Your task to perform on an android device: set an alarm Image 0: 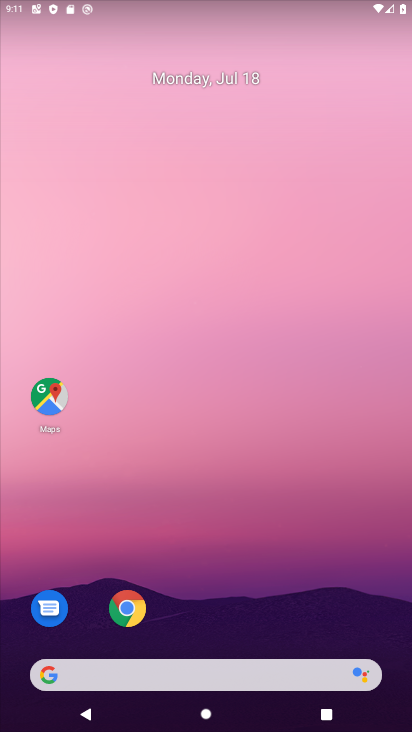
Step 0: press home button
Your task to perform on an android device: set an alarm Image 1: 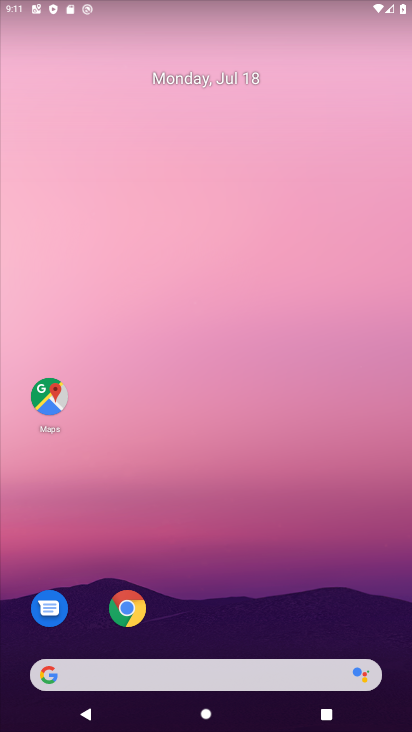
Step 1: drag from (217, 642) to (267, 1)
Your task to perform on an android device: set an alarm Image 2: 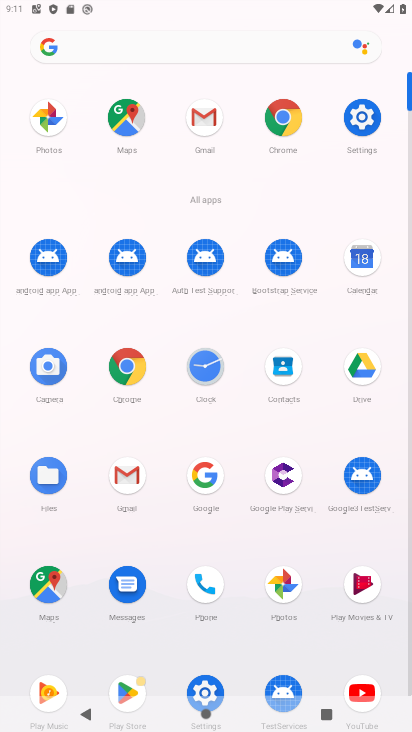
Step 2: click (202, 357)
Your task to perform on an android device: set an alarm Image 3: 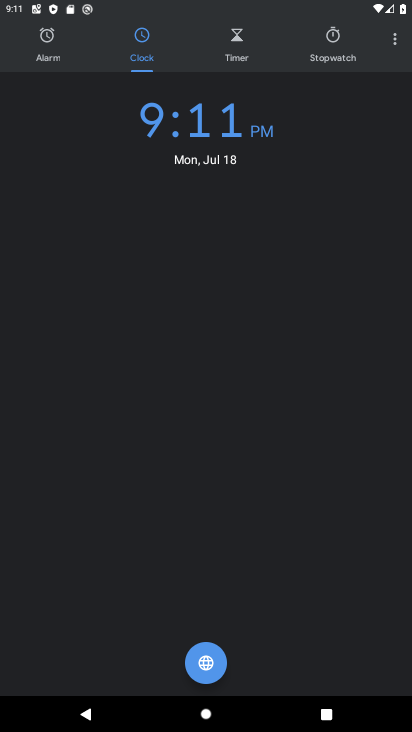
Step 3: click (46, 32)
Your task to perform on an android device: set an alarm Image 4: 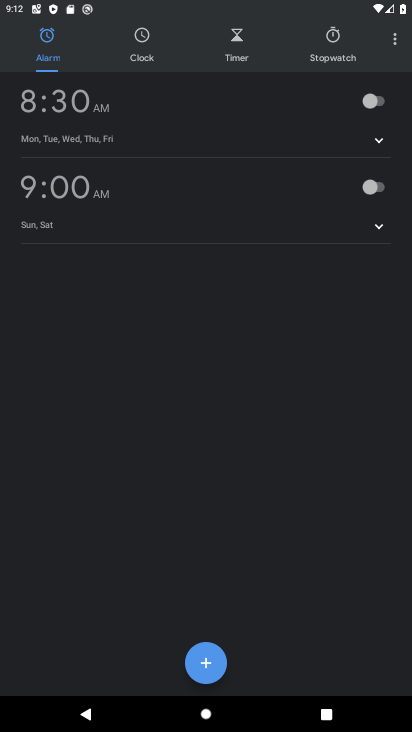
Step 4: click (378, 97)
Your task to perform on an android device: set an alarm Image 5: 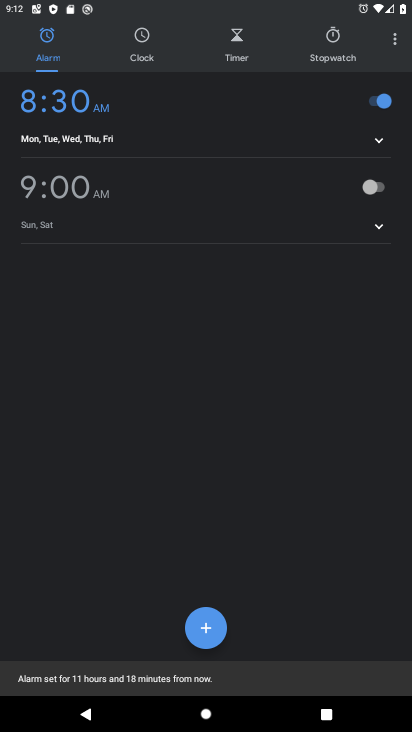
Step 5: task complete